Your task to perform on an android device: Open Maps and search for coffee Image 0: 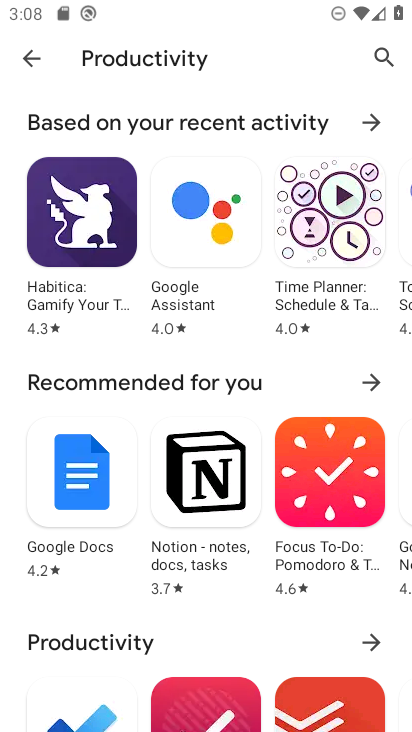
Step 0: press home button
Your task to perform on an android device: Open Maps and search for coffee Image 1: 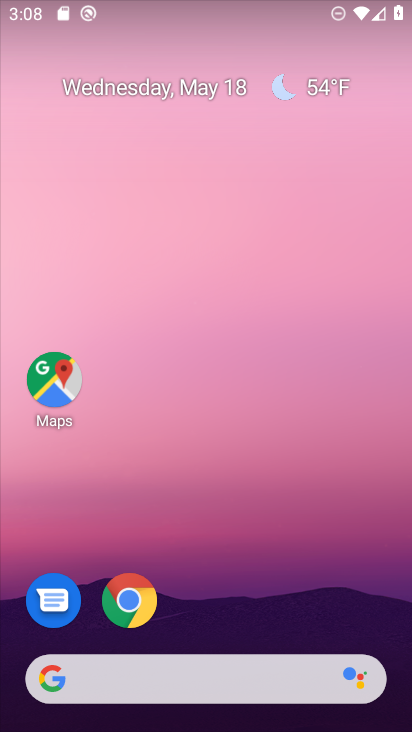
Step 1: click (55, 360)
Your task to perform on an android device: Open Maps and search for coffee Image 2: 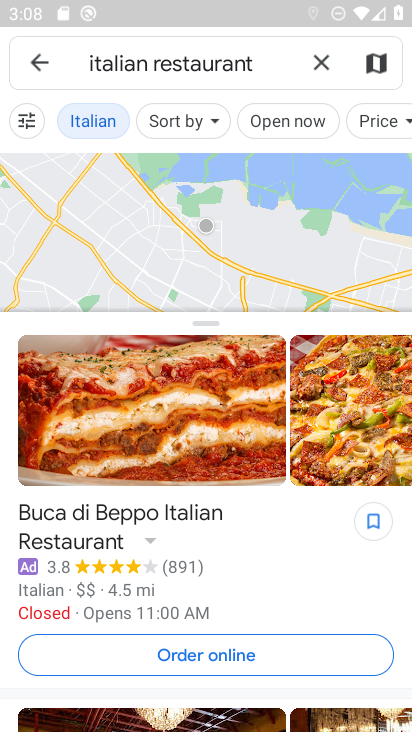
Step 2: click (316, 62)
Your task to perform on an android device: Open Maps and search for coffee Image 3: 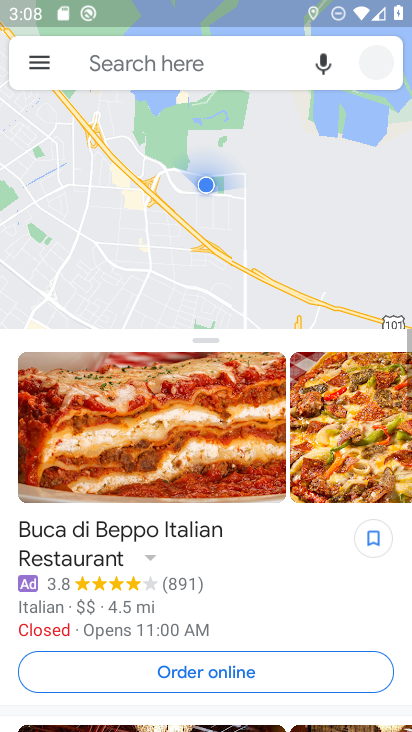
Step 3: click (219, 62)
Your task to perform on an android device: Open Maps and search for coffee Image 4: 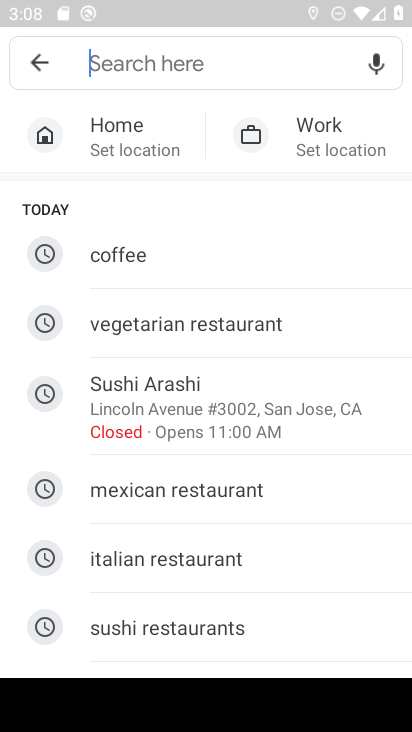
Step 4: type "coffee"
Your task to perform on an android device: Open Maps and search for coffee Image 5: 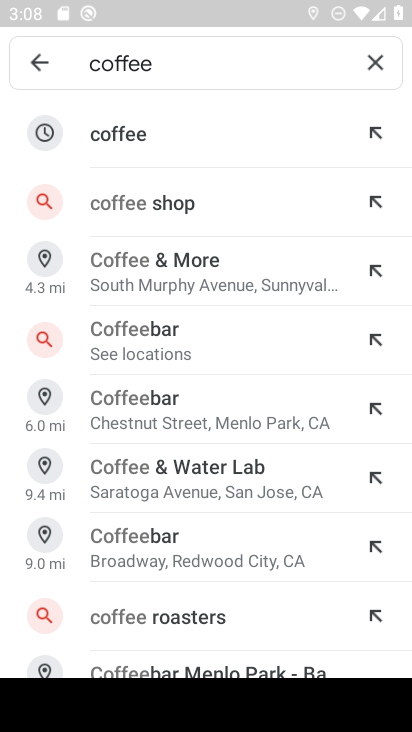
Step 5: click (177, 141)
Your task to perform on an android device: Open Maps and search for coffee Image 6: 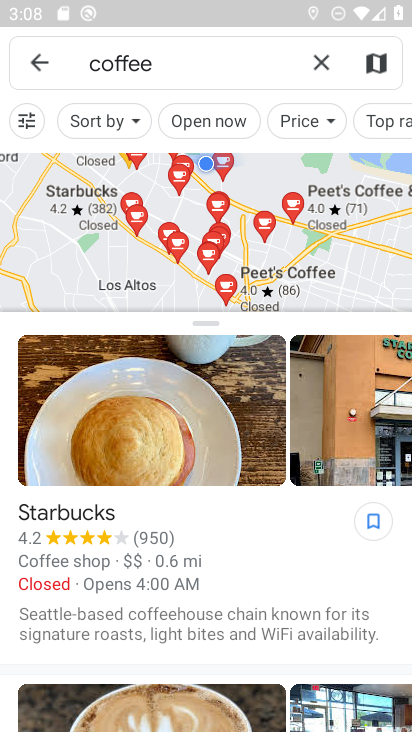
Step 6: task complete